Your task to perform on an android device: Open battery settings Image 0: 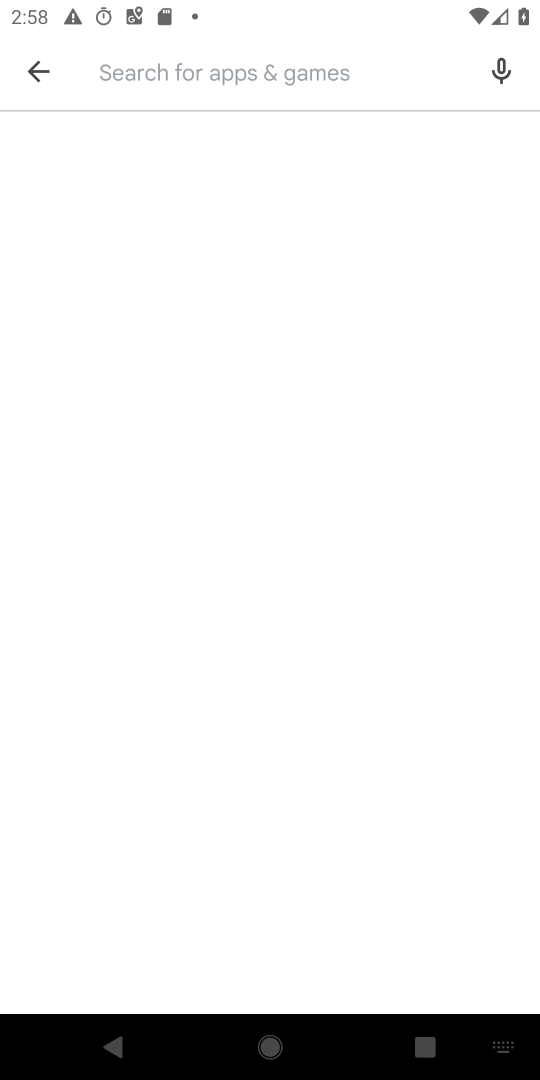
Step 0: press home button
Your task to perform on an android device: Open battery settings Image 1: 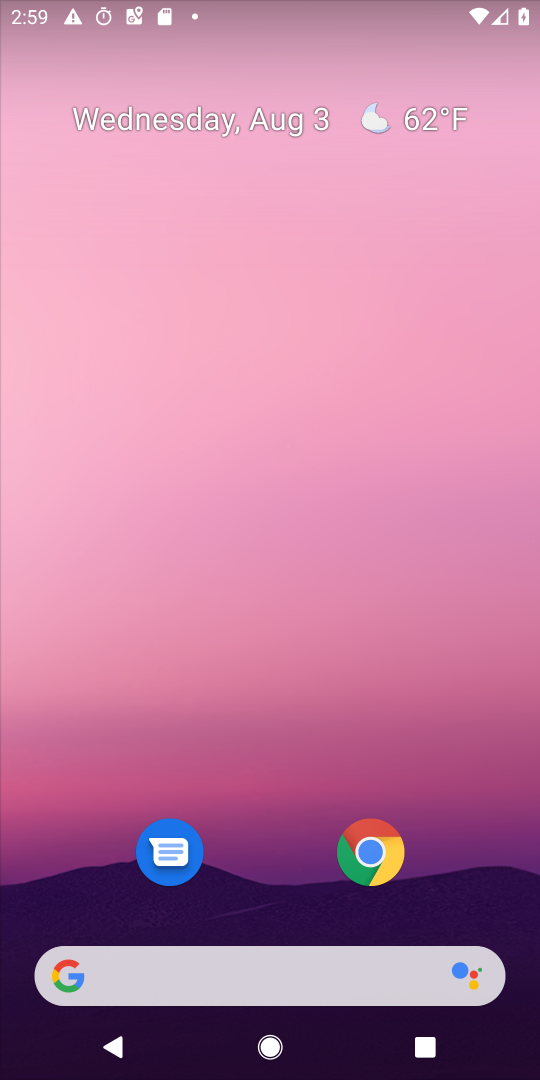
Step 1: drag from (468, 560) to (294, 0)
Your task to perform on an android device: Open battery settings Image 2: 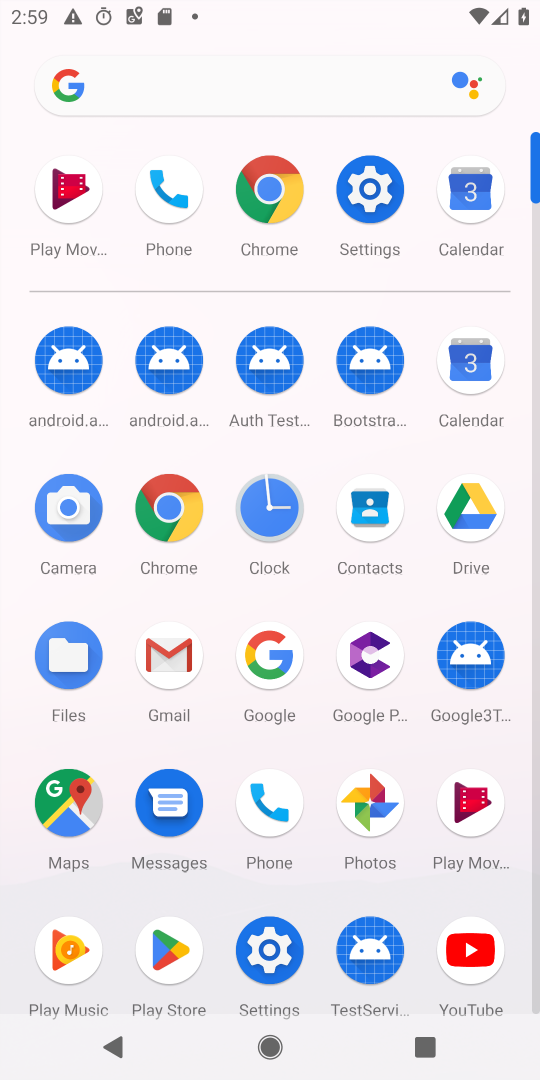
Step 2: click (369, 199)
Your task to perform on an android device: Open battery settings Image 3: 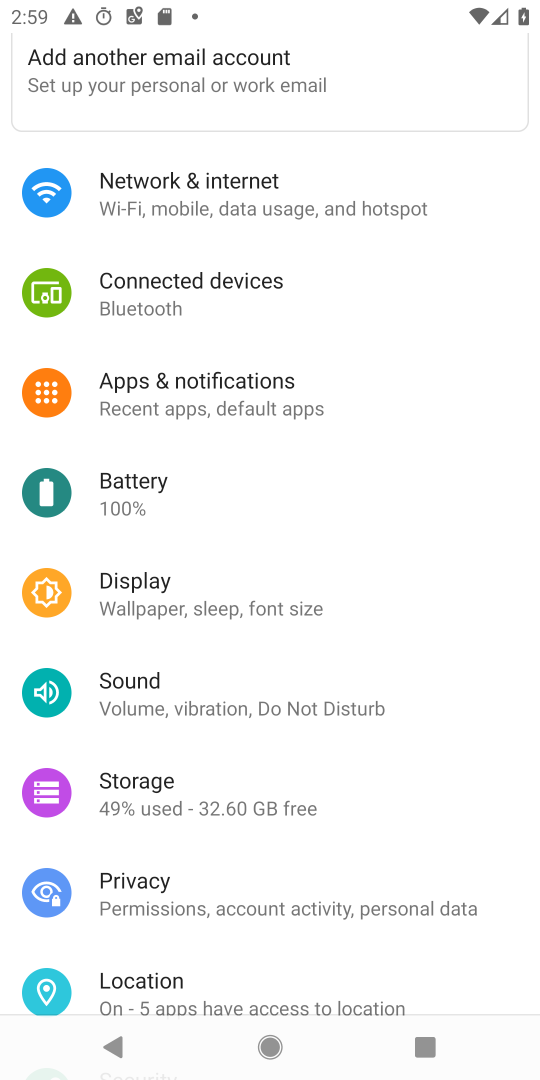
Step 3: click (135, 504)
Your task to perform on an android device: Open battery settings Image 4: 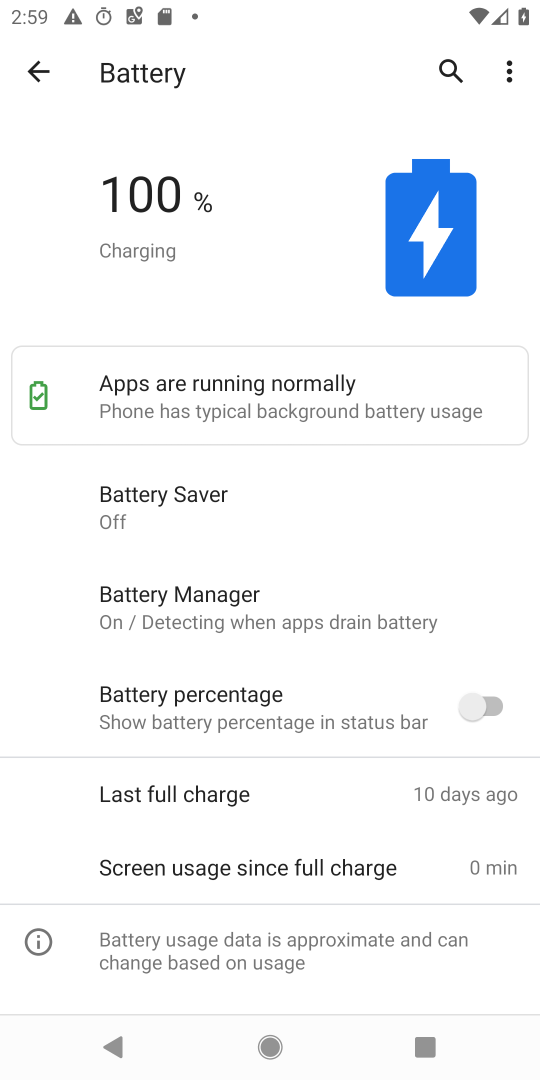
Step 4: task complete